Your task to perform on an android device: When is my next appointment? Image 0: 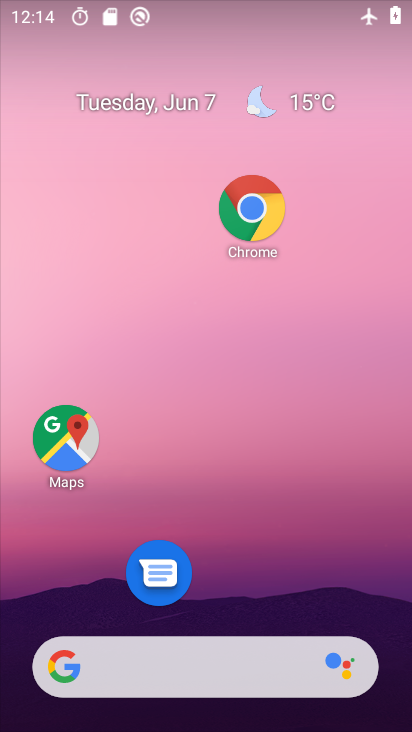
Step 0: drag from (222, 579) to (167, 241)
Your task to perform on an android device: When is my next appointment? Image 1: 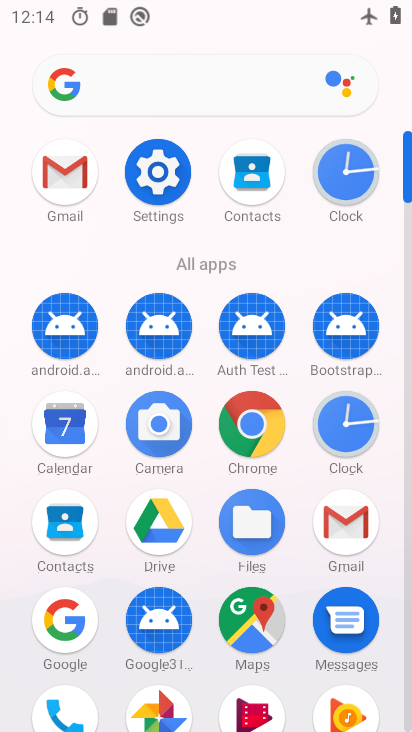
Step 1: click (70, 438)
Your task to perform on an android device: When is my next appointment? Image 2: 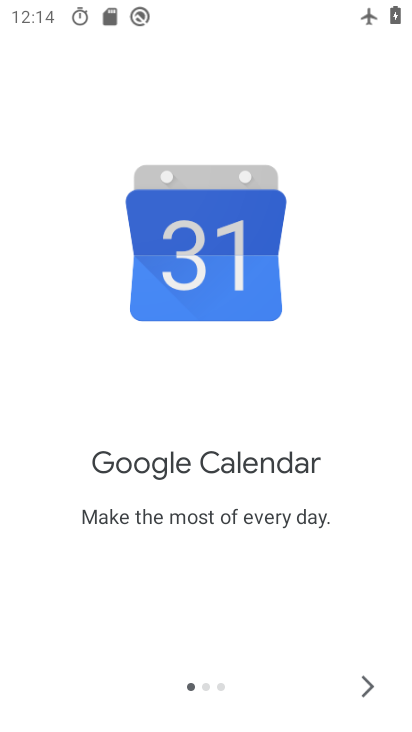
Step 2: click (359, 677)
Your task to perform on an android device: When is my next appointment? Image 3: 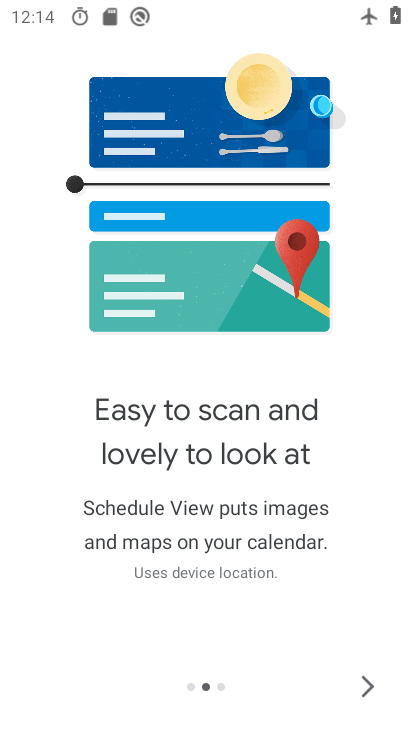
Step 3: click (359, 677)
Your task to perform on an android device: When is my next appointment? Image 4: 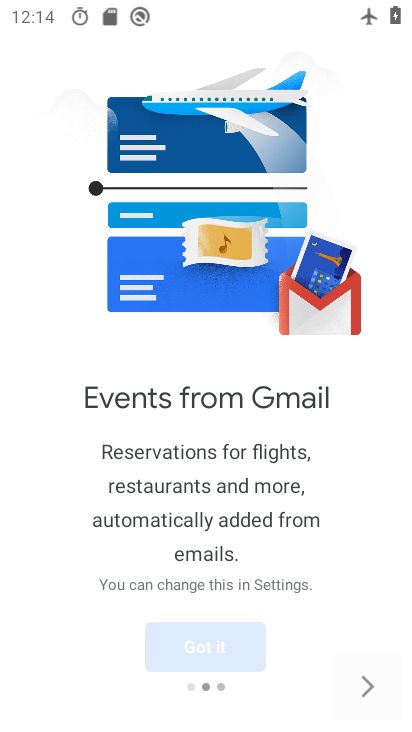
Step 4: click (359, 677)
Your task to perform on an android device: When is my next appointment? Image 5: 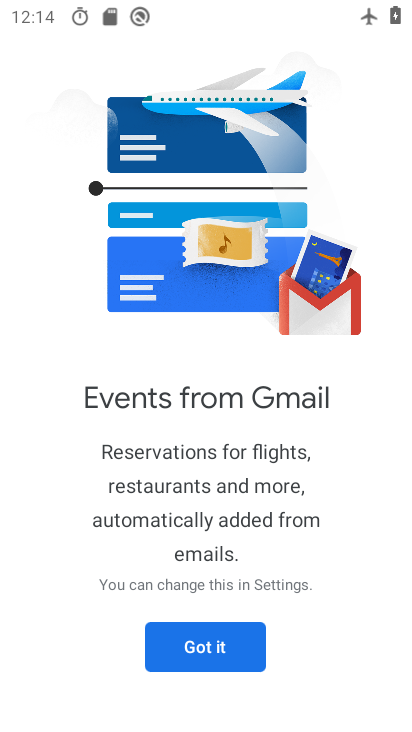
Step 5: click (164, 638)
Your task to perform on an android device: When is my next appointment? Image 6: 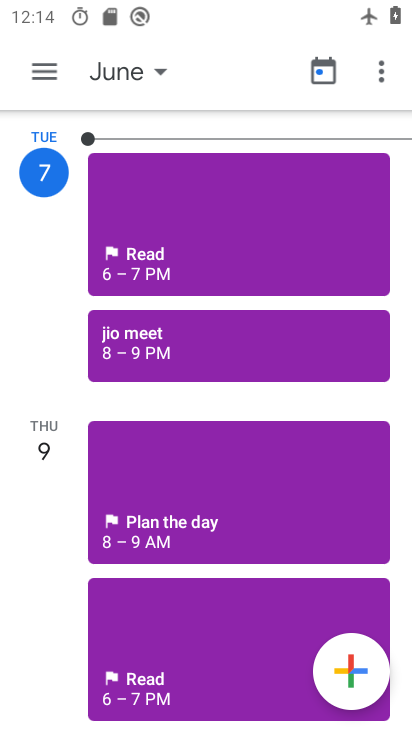
Step 6: click (157, 59)
Your task to perform on an android device: When is my next appointment? Image 7: 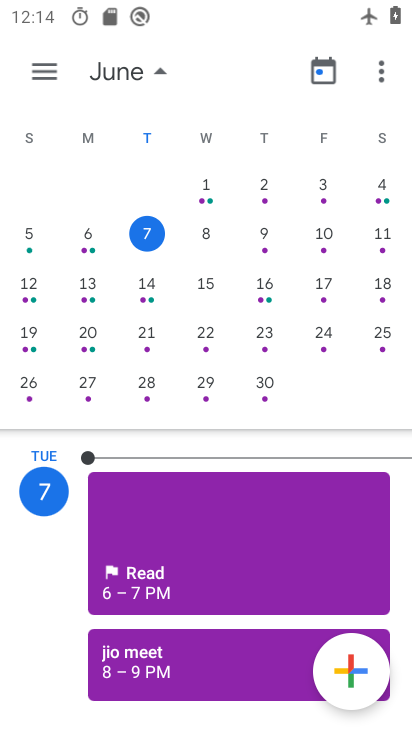
Step 7: drag from (256, 610) to (231, 434)
Your task to perform on an android device: When is my next appointment? Image 8: 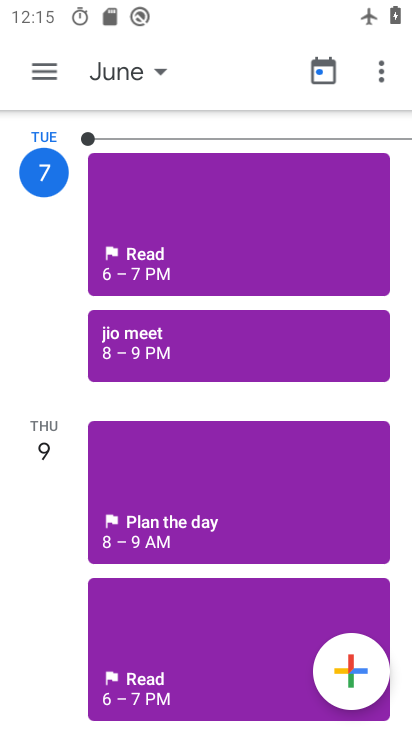
Step 8: click (203, 453)
Your task to perform on an android device: When is my next appointment? Image 9: 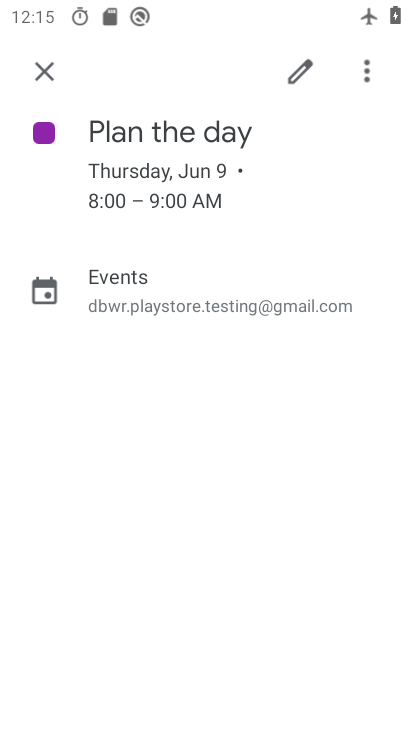
Step 9: click (183, 382)
Your task to perform on an android device: When is my next appointment? Image 10: 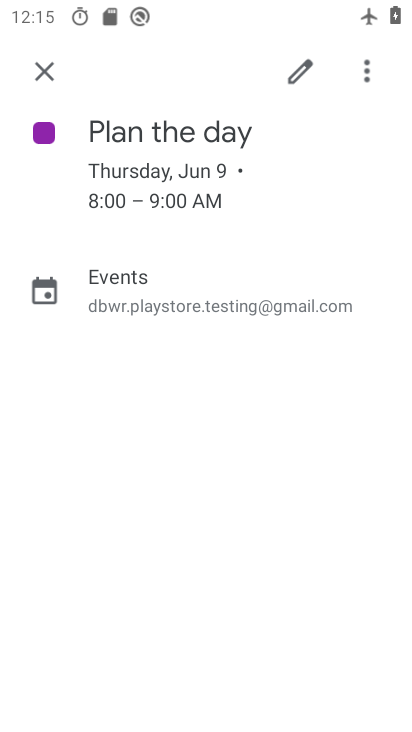
Step 10: click (40, 55)
Your task to perform on an android device: When is my next appointment? Image 11: 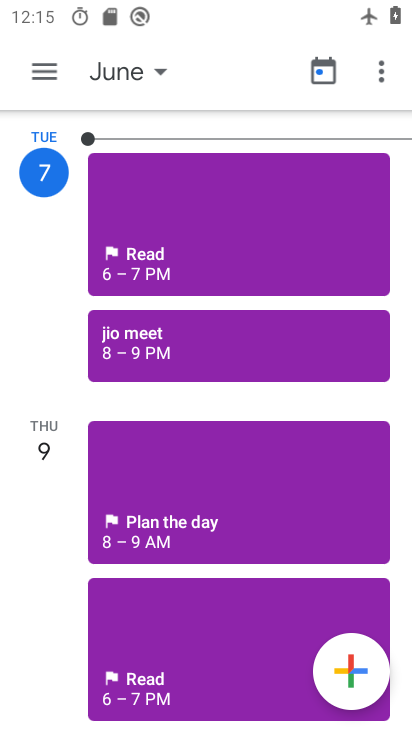
Step 11: click (233, 329)
Your task to perform on an android device: When is my next appointment? Image 12: 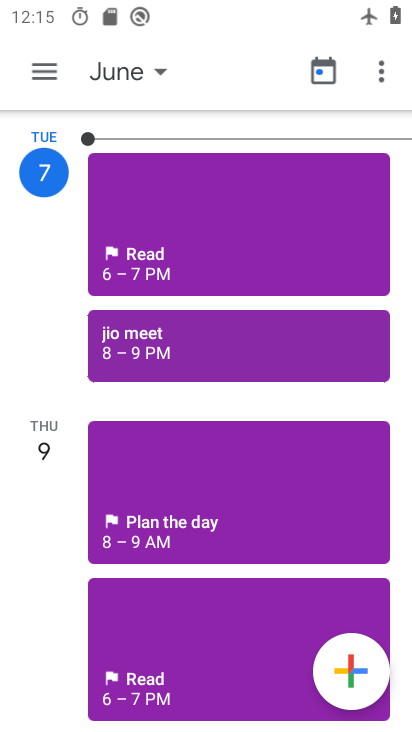
Step 12: click (231, 332)
Your task to perform on an android device: When is my next appointment? Image 13: 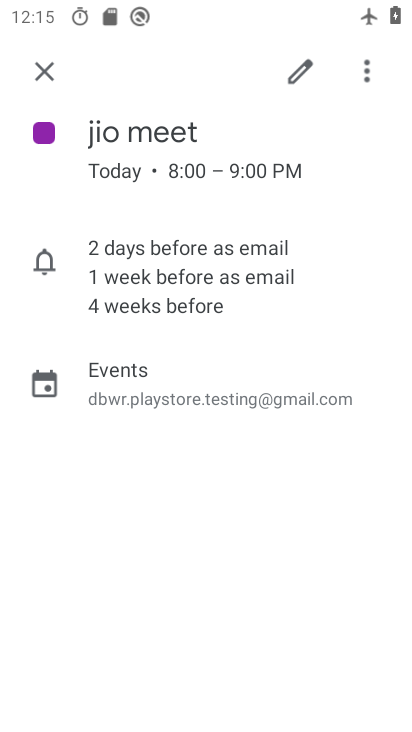
Step 13: task complete